Your task to perform on an android device: Go to sound settings Image 0: 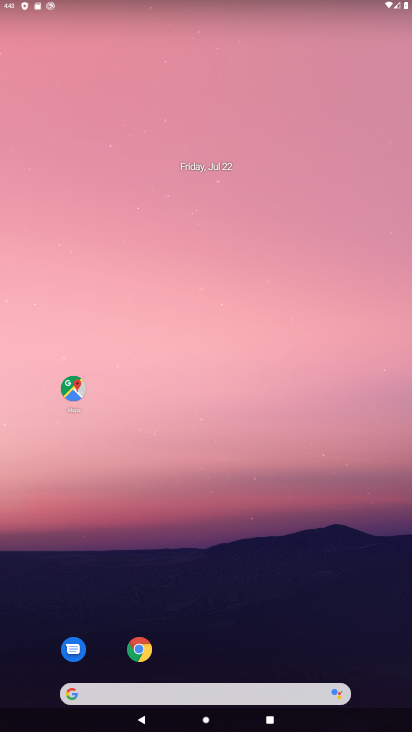
Step 0: drag from (332, 645) to (251, 0)
Your task to perform on an android device: Go to sound settings Image 1: 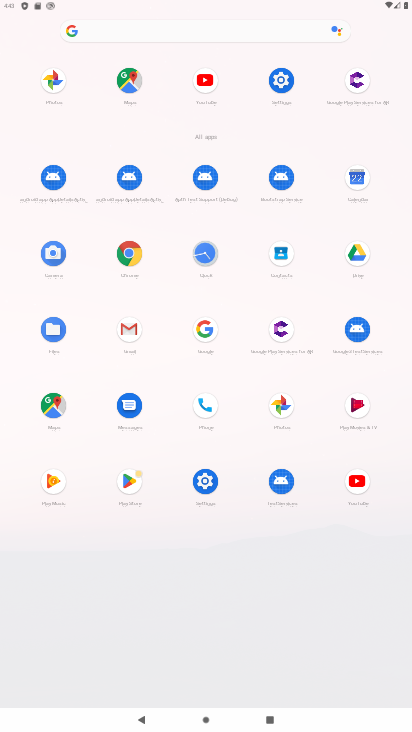
Step 1: click (280, 91)
Your task to perform on an android device: Go to sound settings Image 2: 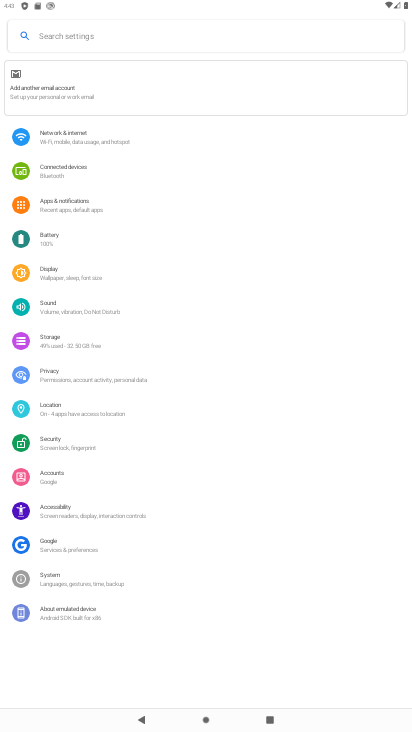
Step 2: click (112, 302)
Your task to perform on an android device: Go to sound settings Image 3: 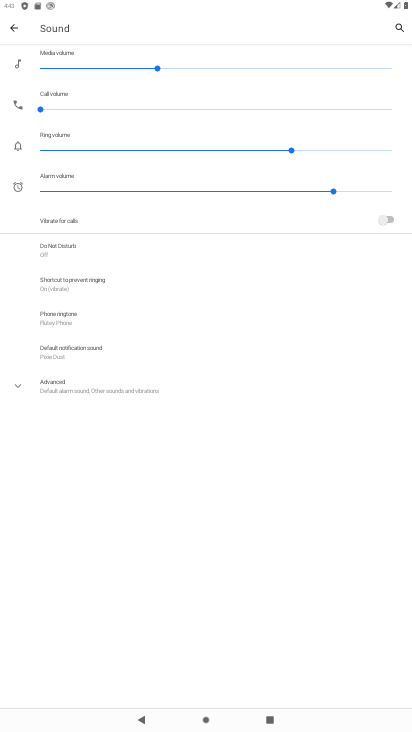
Step 3: task complete